Your task to perform on an android device: Go to calendar. Show me events next week Image 0: 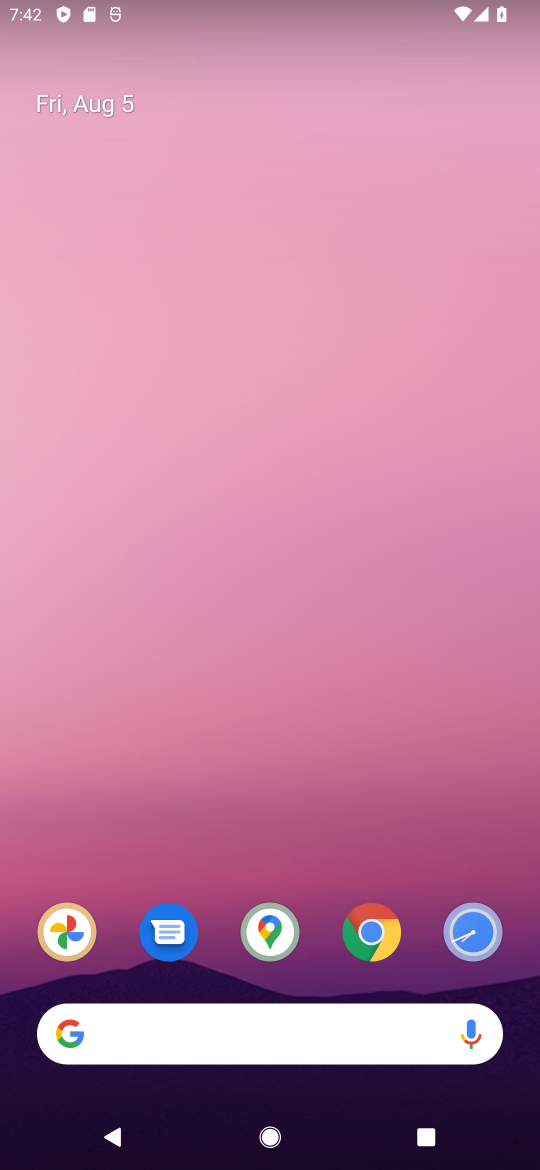
Step 0: drag from (299, 875) to (296, 4)
Your task to perform on an android device: Go to calendar. Show me events next week Image 1: 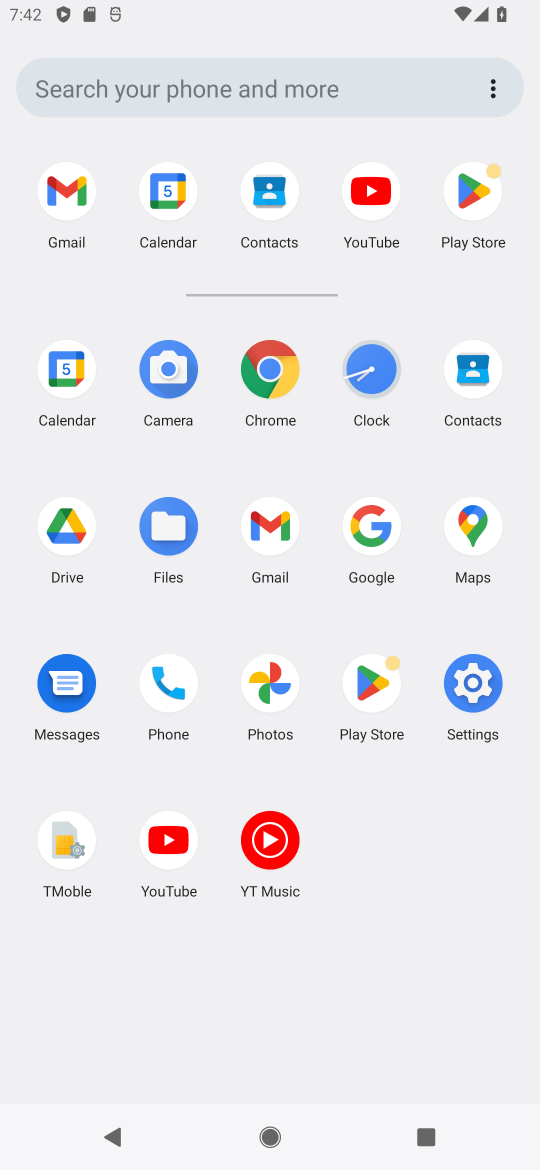
Step 1: click (39, 366)
Your task to perform on an android device: Go to calendar. Show me events next week Image 2: 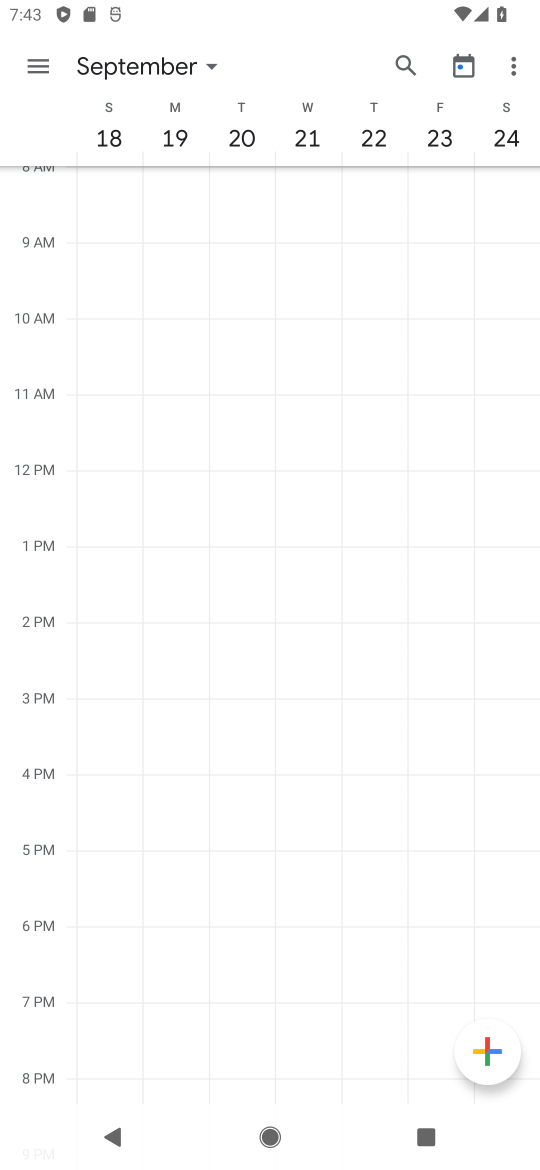
Step 2: click (190, 62)
Your task to perform on an android device: Go to calendar. Show me events next week Image 3: 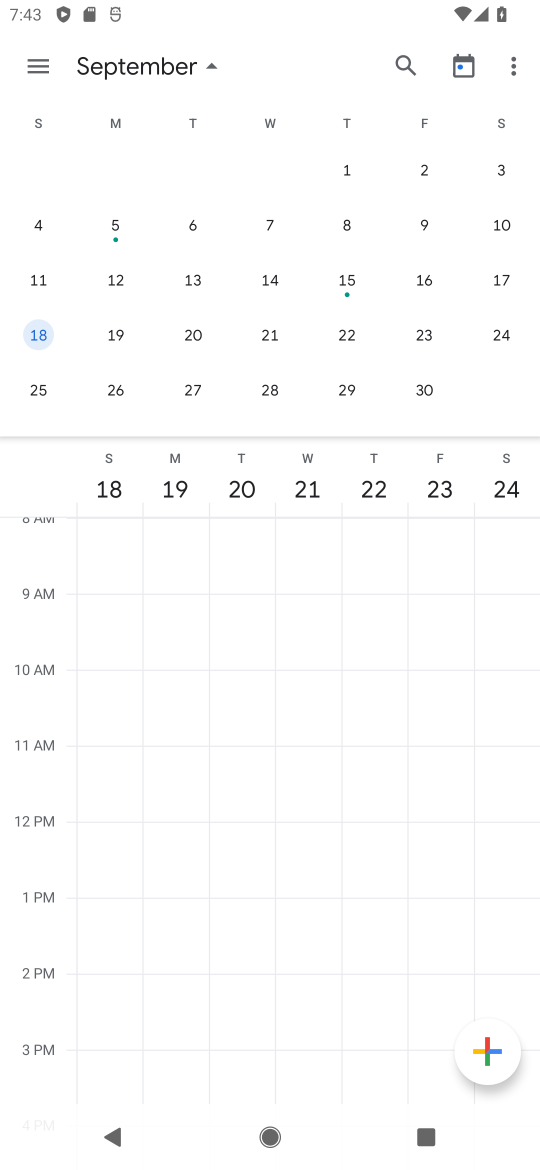
Step 3: drag from (102, 315) to (539, 343)
Your task to perform on an android device: Go to calendar. Show me events next week Image 4: 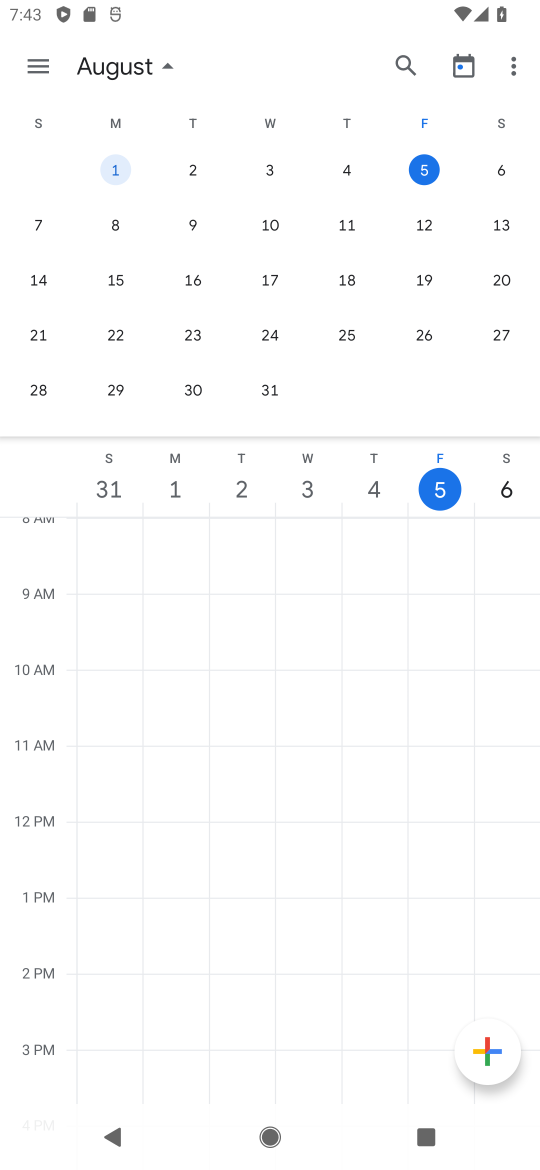
Step 4: click (358, 218)
Your task to perform on an android device: Go to calendar. Show me events next week Image 5: 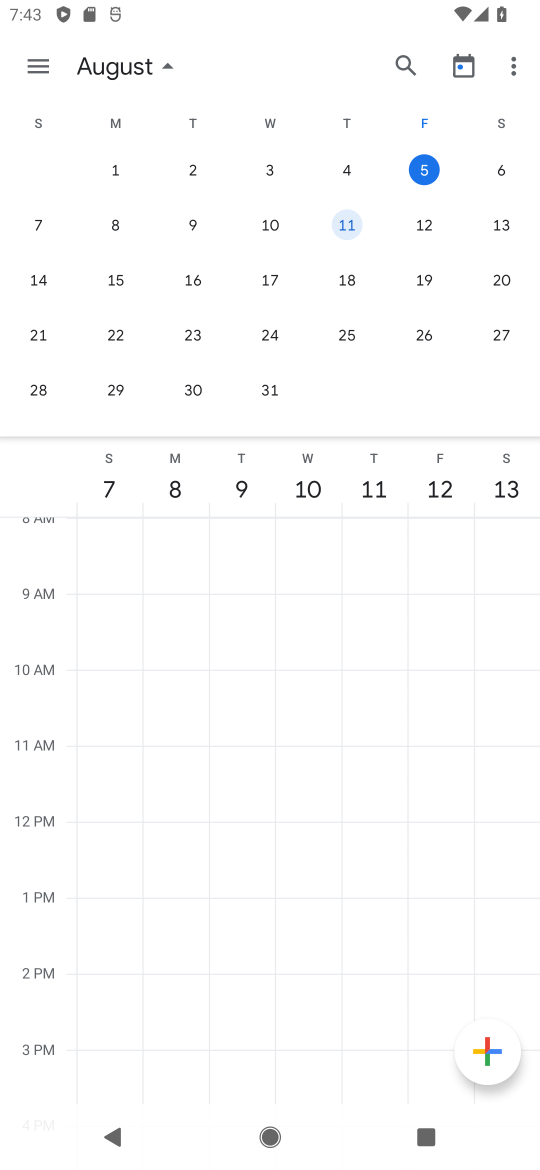
Step 5: task complete